Your task to perform on an android device: open app "Skype" Image 0: 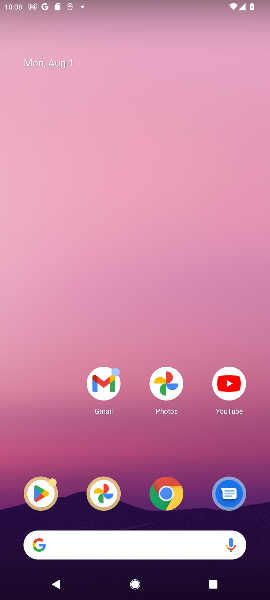
Step 0: drag from (133, 508) to (145, 21)
Your task to perform on an android device: open app "Skype" Image 1: 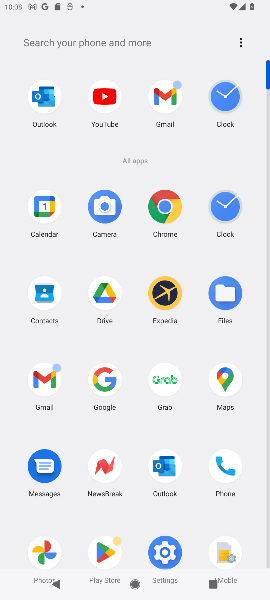
Step 1: click (119, 535)
Your task to perform on an android device: open app "Skype" Image 2: 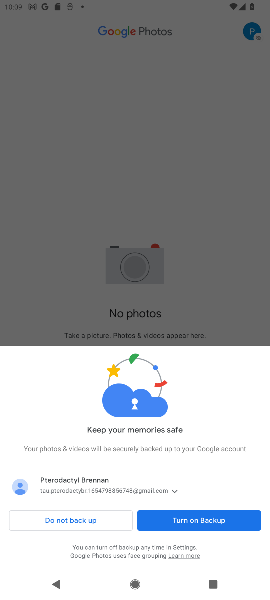
Step 2: click (205, 526)
Your task to perform on an android device: open app "Skype" Image 3: 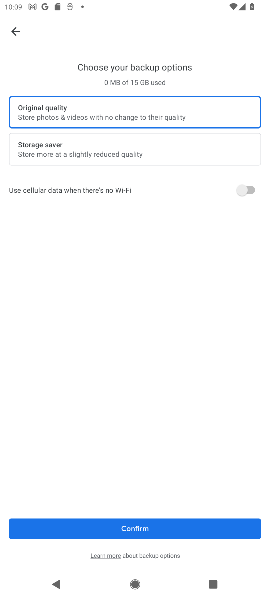
Step 3: click (193, 528)
Your task to perform on an android device: open app "Skype" Image 4: 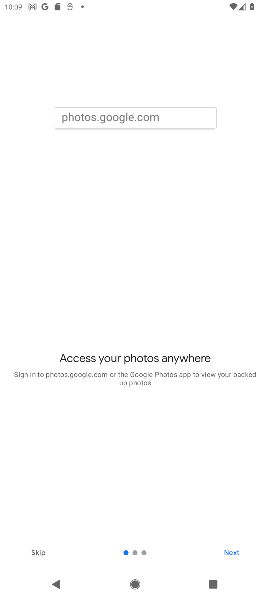
Step 4: click (233, 549)
Your task to perform on an android device: open app "Skype" Image 5: 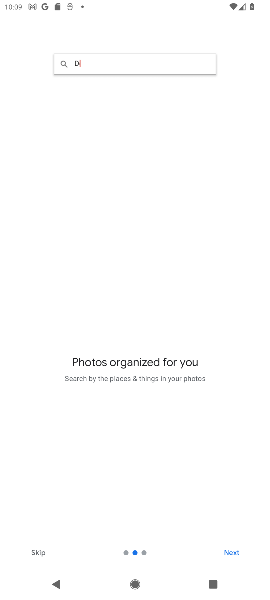
Step 5: click (233, 549)
Your task to perform on an android device: open app "Skype" Image 6: 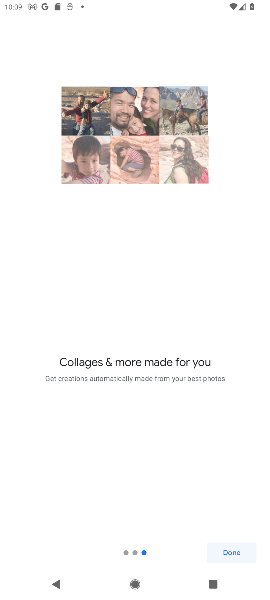
Step 6: click (233, 549)
Your task to perform on an android device: open app "Skype" Image 7: 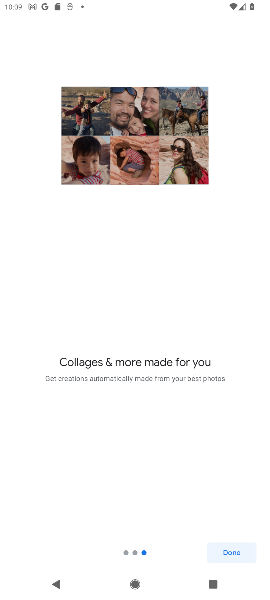
Step 7: click (233, 549)
Your task to perform on an android device: open app "Skype" Image 8: 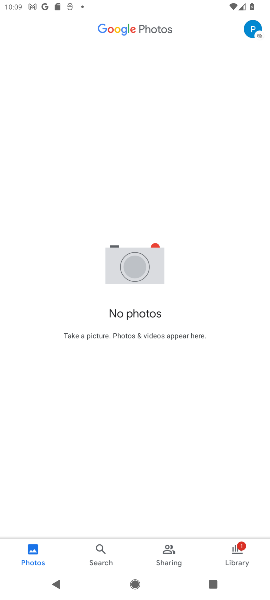
Step 8: click (233, 549)
Your task to perform on an android device: open app "Skype" Image 9: 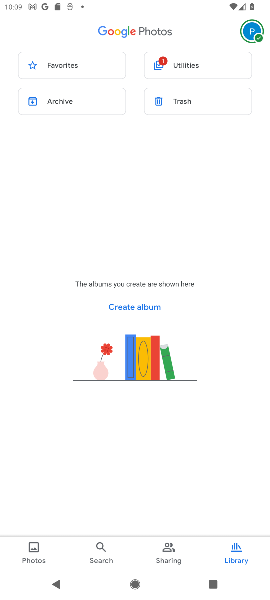
Step 9: press home button
Your task to perform on an android device: open app "Skype" Image 10: 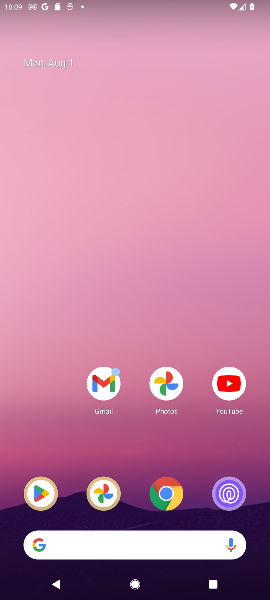
Step 10: click (43, 491)
Your task to perform on an android device: open app "Skype" Image 11: 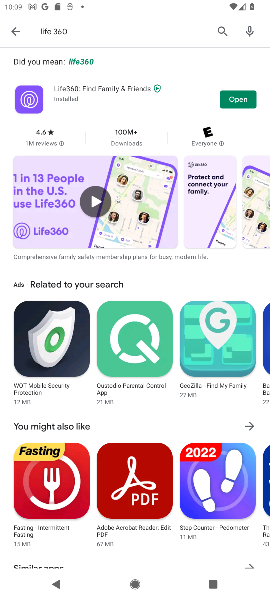
Step 11: click (224, 32)
Your task to perform on an android device: open app "Skype" Image 12: 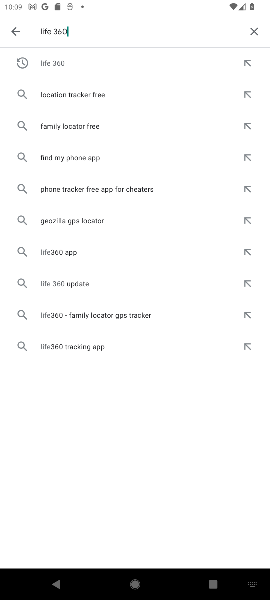
Step 12: click (251, 30)
Your task to perform on an android device: open app "Skype" Image 13: 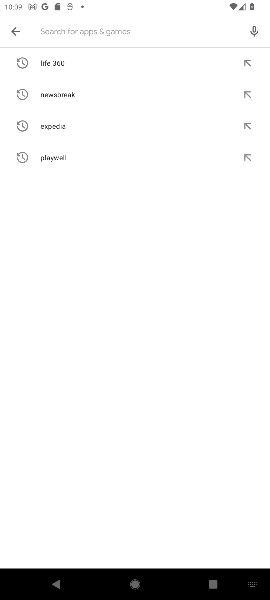
Step 13: type "skype"
Your task to perform on an android device: open app "Skype" Image 14: 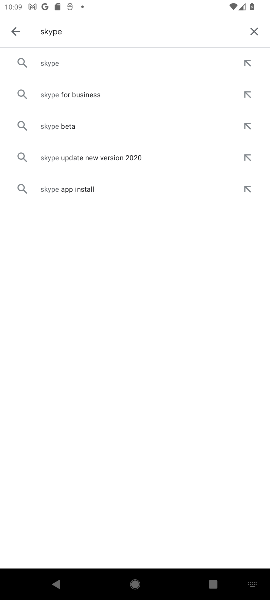
Step 14: click (99, 55)
Your task to perform on an android device: open app "Skype" Image 15: 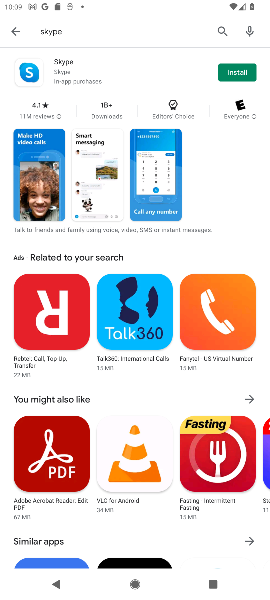
Step 15: click (261, 70)
Your task to perform on an android device: open app "Skype" Image 16: 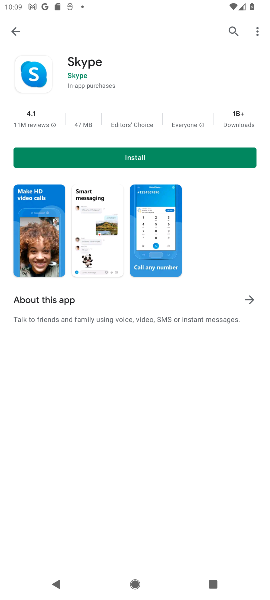
Step 16: click (243, 74)
Your task to perform on an android device: open app "Skype" Image 17: 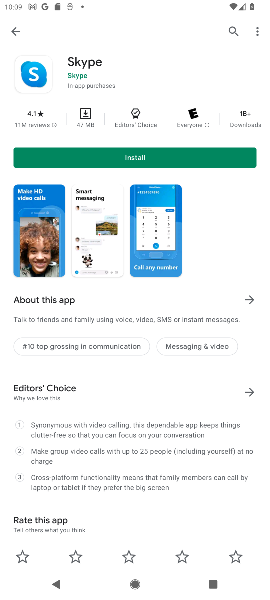
Step 17: task complete